Your task to perform on an android device: check google app version Image 0: 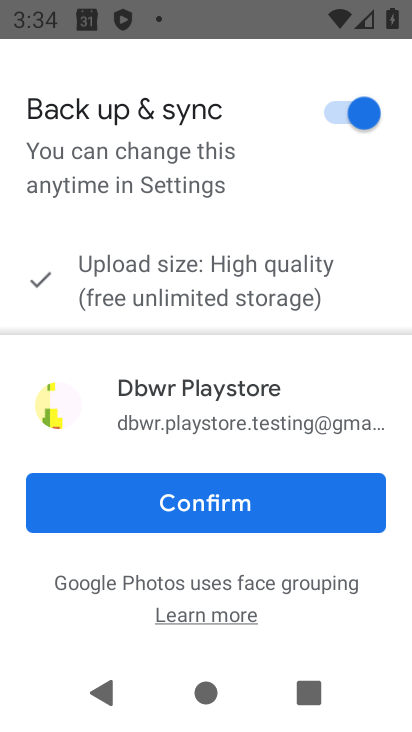
Step 0: press home button
Your task to perform on an android device: check google app version Image 1: 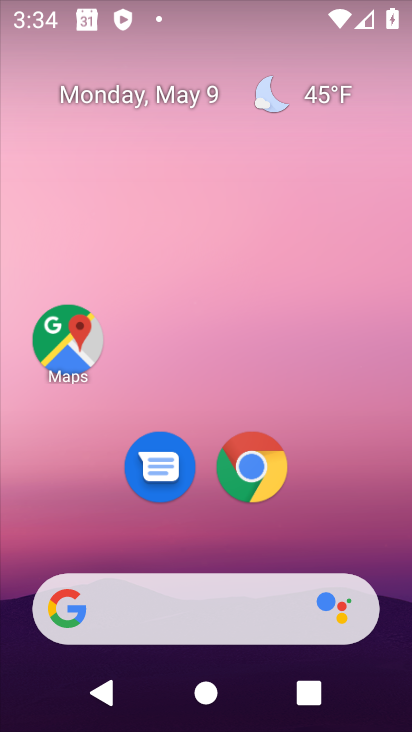
Step 1: drag from (326, 505) to (334, 129)
Your task to perform on an android device: check google app version Image 2: 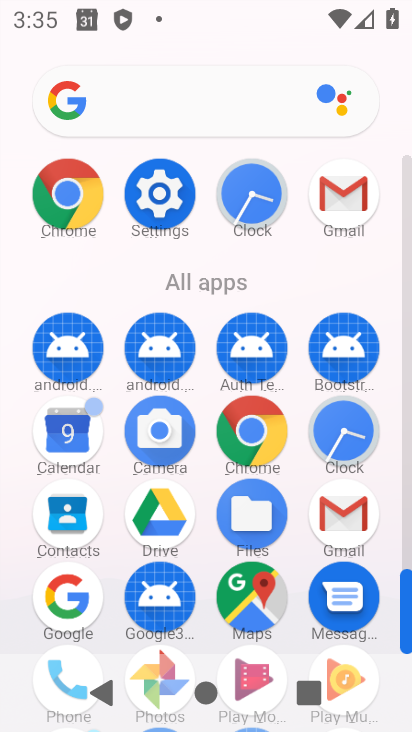
Step 2: click (76, 593)
Your task to perform on an android device: check google app version Image 3: 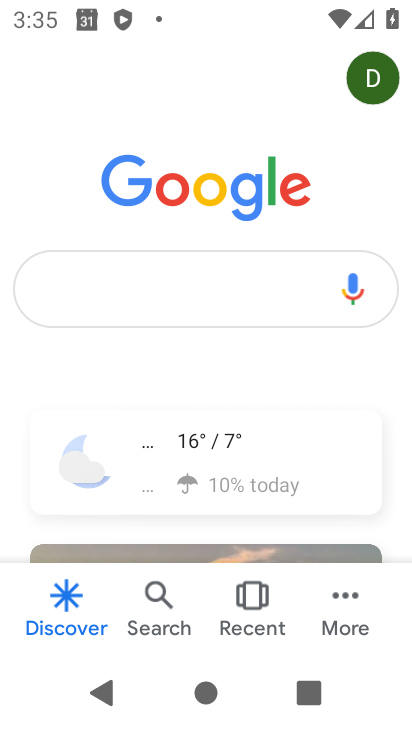
Step 3: click (351, 600)
Your task to perform on an android device: check google app version Image 4: 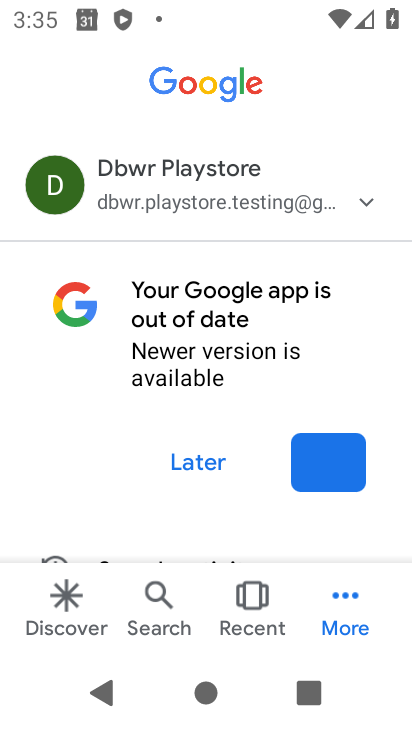
Step 4: click (354, 594)
Your task to perform on an android device: check google app version Image 5: 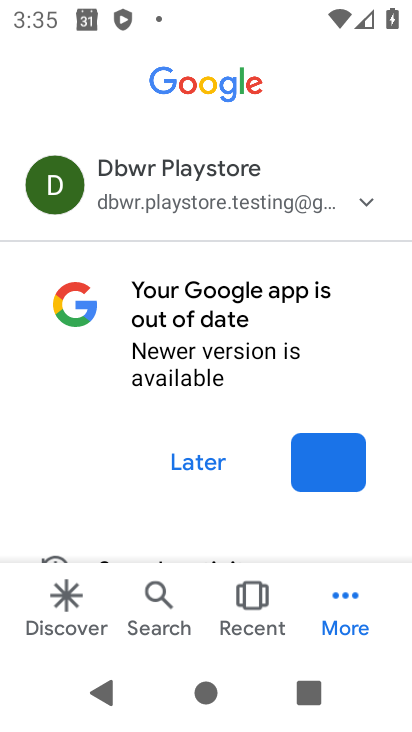
Step 5: click (213, 463)
Your task to perform on an android device: check google app version Image 6: 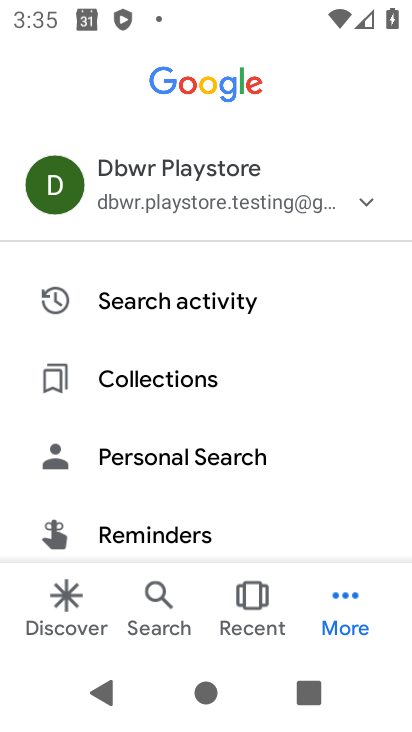
Step 6: drag from (282, 481) to (285, 208)
Your task to perform on an android device: check google app version Image 7: 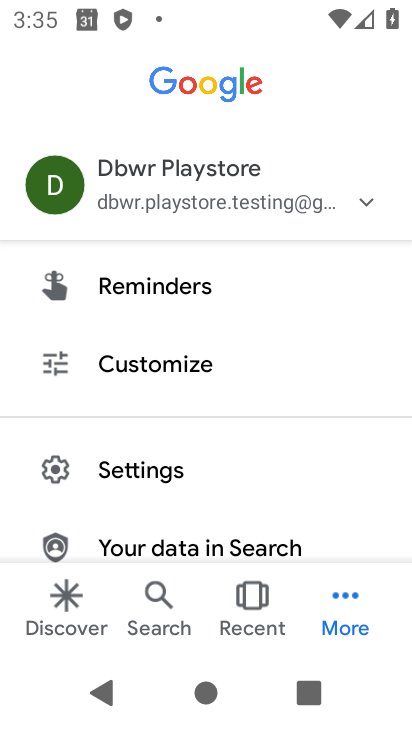
Step 7: click (192, 470)
Your task to perform on an android device: check google app version Image 8: 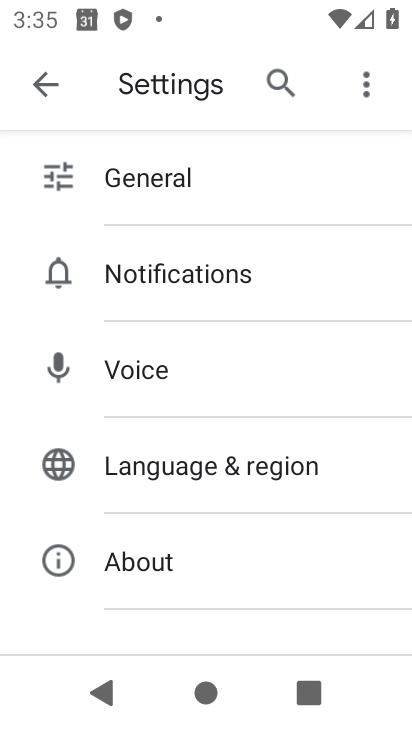
Step 8: click (165, 559)
Your task to perform on an android device: check google app version Image 9: 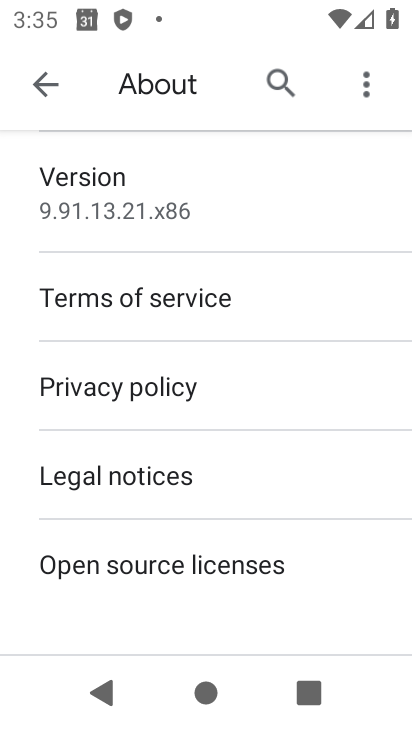
Step 9: task complete